Your task to perform on an android device: toggle improve location accuracy Image 0: 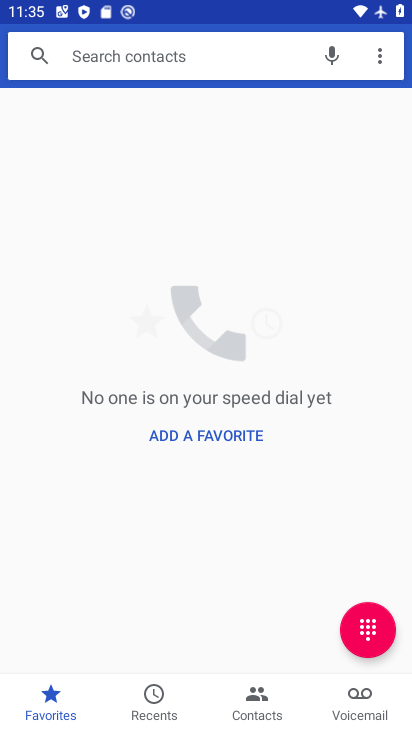
Step 0: press back button
Your task to perform on an android device: toggle improve location accuracy Image 1: 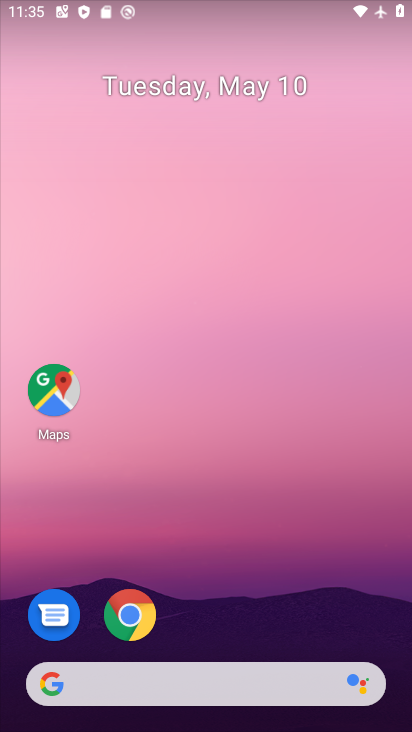
Step 1: drag from (250, 590) to (197, 65)
Your task to perform on an android device: toggle improve location accuracy Image 2: 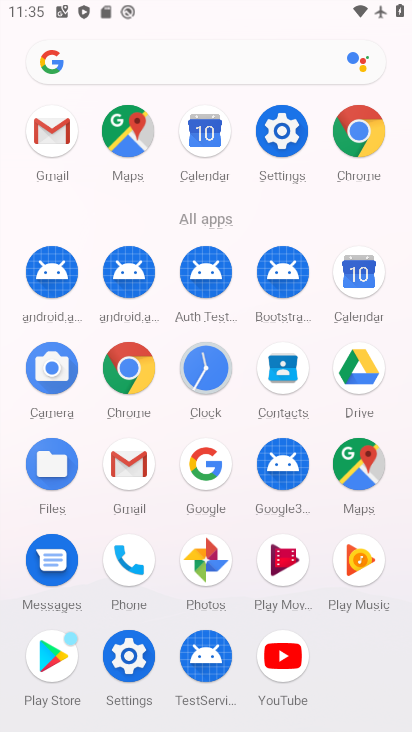
Step 2: drag from (8, 498) to (12, 328)
Your task to perform on an android device: toggle improve location accuracy Image 3: 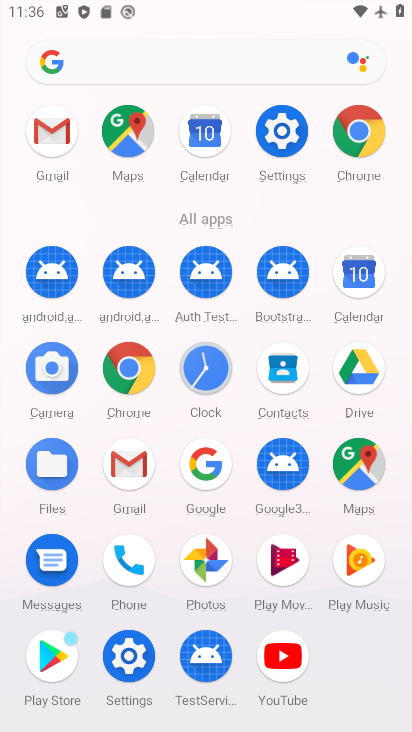
Step 3: click (280, 124)
Your task to perform on an android device: toggle improve location accuracy Image 4: 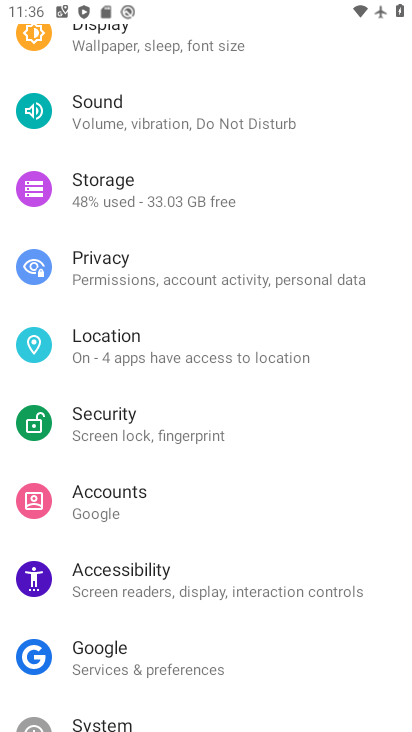
Step 4: click (169, 336)
Your task to perform on an android device: toggle improve location accuracy Image 5: 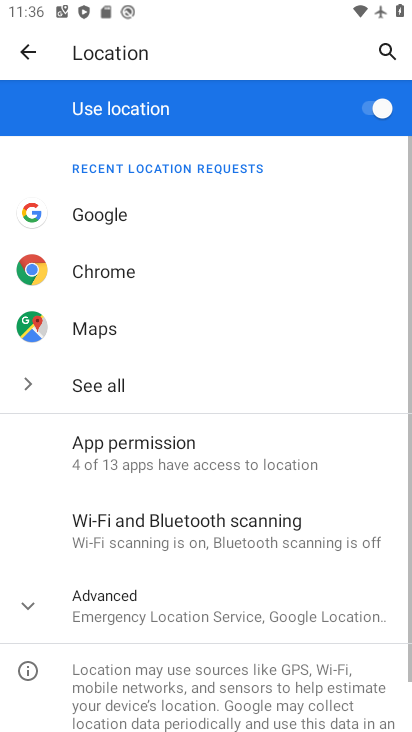
Step 5: click (161, 607)
Your task to perform on an android device: toggle improve location accuracy Image 6: 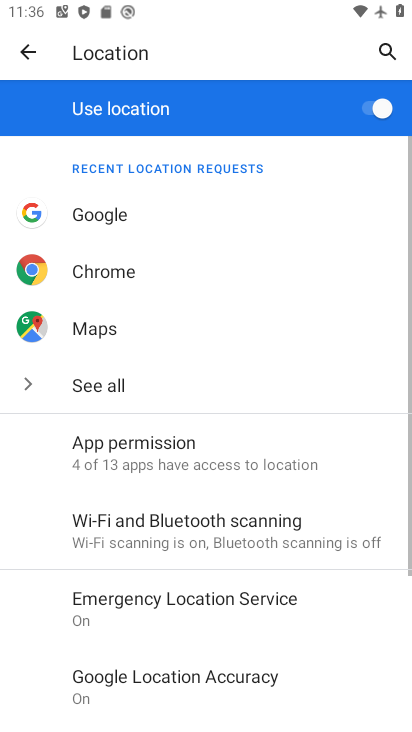
Step 6: drag from (249, 647) to (222, 236)
Your task to perform on an android device: toggle improve location accuracy Image 7: 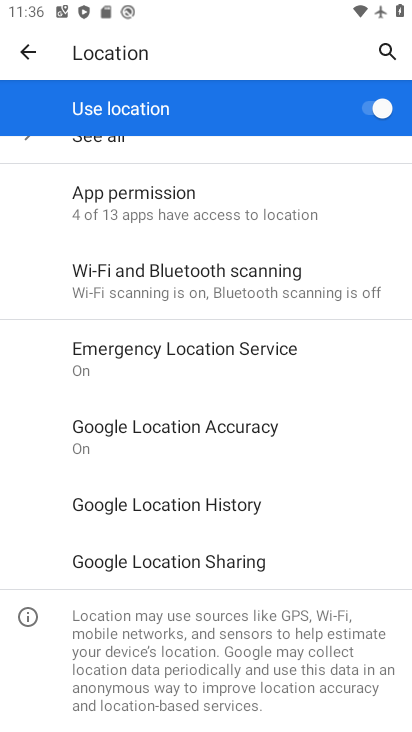
Step 7: click (198, 445)
Your task to perform on an android device: toggle improve location accuracy Image 8: 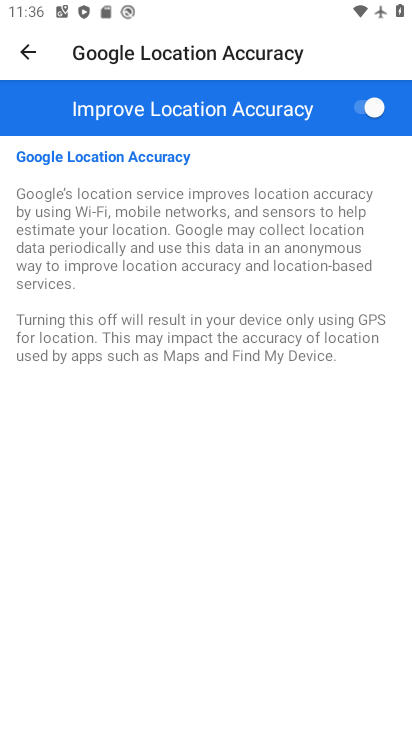
Step 8: click (364, 111)
Your task to perform on an android device: toggle improve location accuracy Image 9: 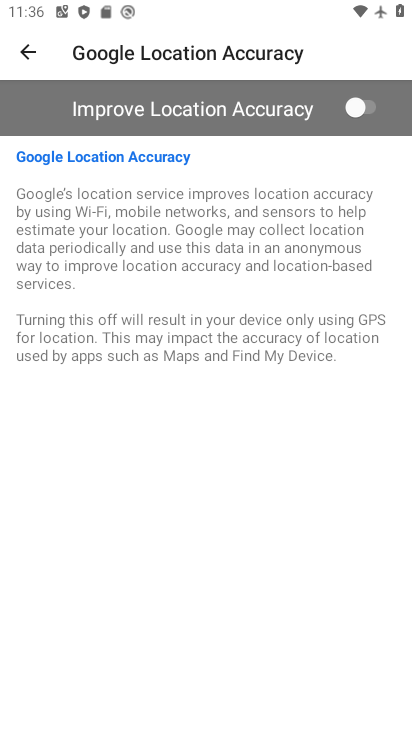
Step 9: task complete